Your task to perform on an android device: Open calendar and show me the fourth week of next month Image 0: 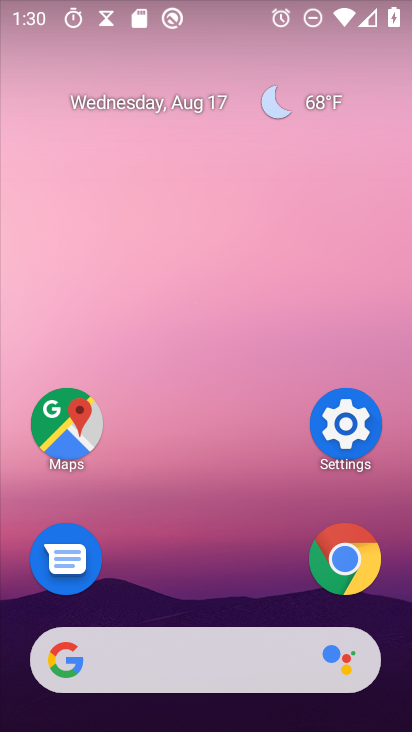
Step 0: drag from (176, 628) to (353, 68)
Your task to perform on an android device: Open calendar and show me the fourth week of next month Image 1: 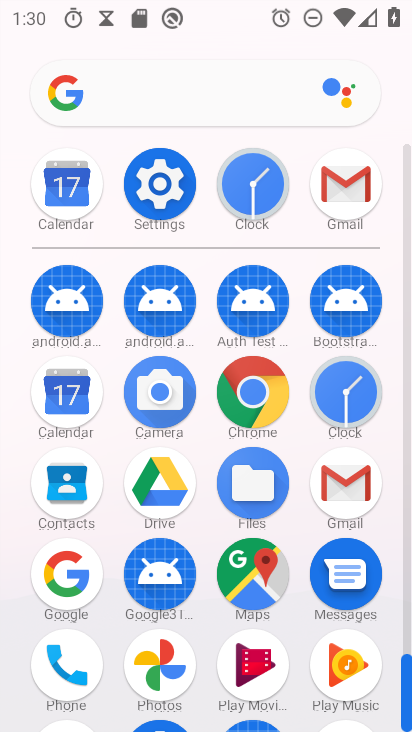
Step 1: click (69, 394)
Your task to perform on an android device: Open calendar and show me the fourth week of next month Image 2: 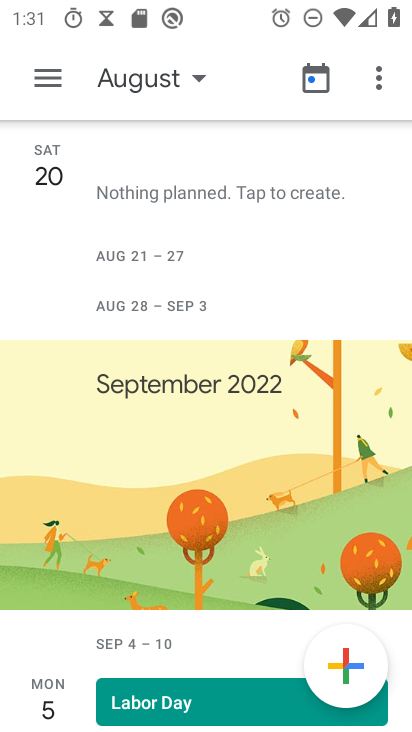
Step 2: click (139, 81)
Your task to perform on an android device: Open calendar and show me the fourth week of next month Image 3: 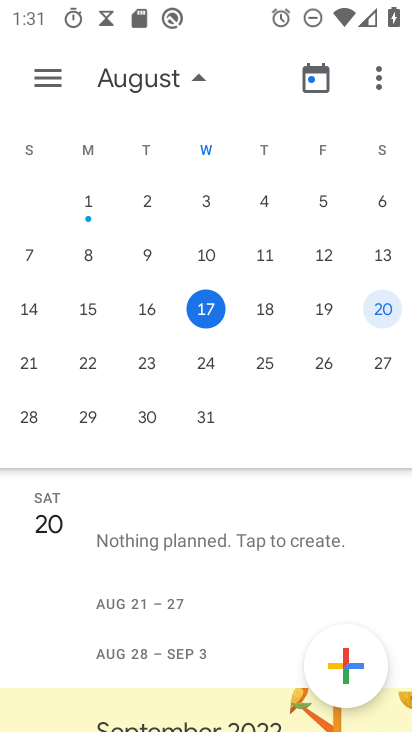
Step 3: drag from (356, 266) to (11, 268)
Your task to perform on an android device: Open calendar and show me the fourth week of next month Image 4: 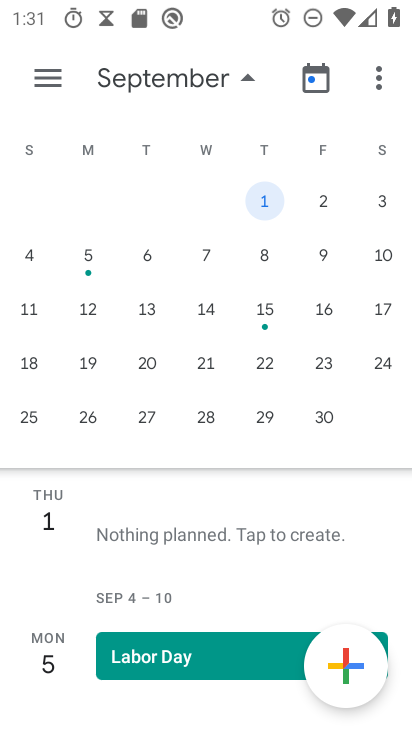
Step 4: click (33, 352)
Your task to perform on an android device: Open calendar and show me the fourth week of next month Image 5: 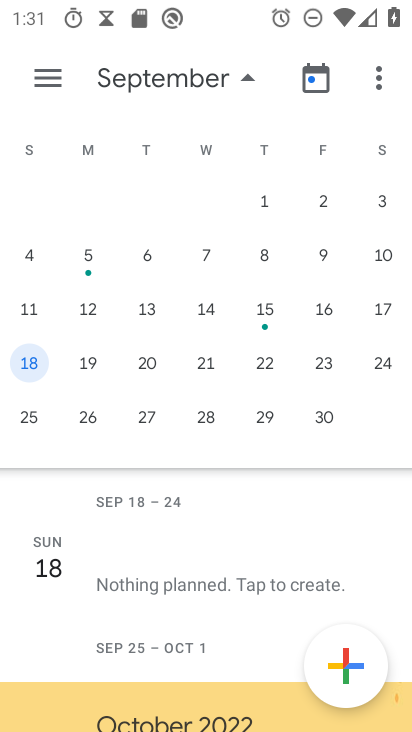
Step 5: click (46, 74)
Your task to perform on an android device: Open calendar and show me the fourth week of next month Image 6: 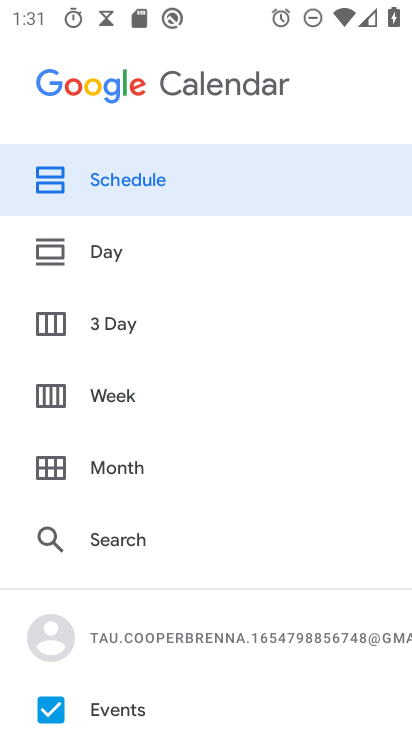
Step 6: click (111, 391)
Your task to perform on an android device: Open calendar and show me the fourth week of next month Image 7: 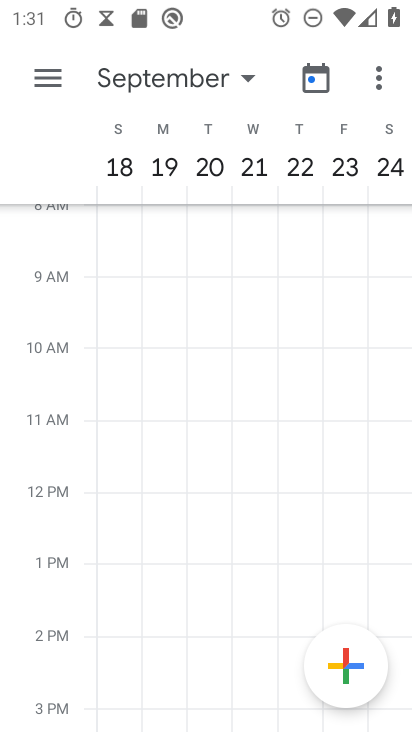
Step 7: task complete